Your task to perform on an android device: Open Reddit.com Image 0: 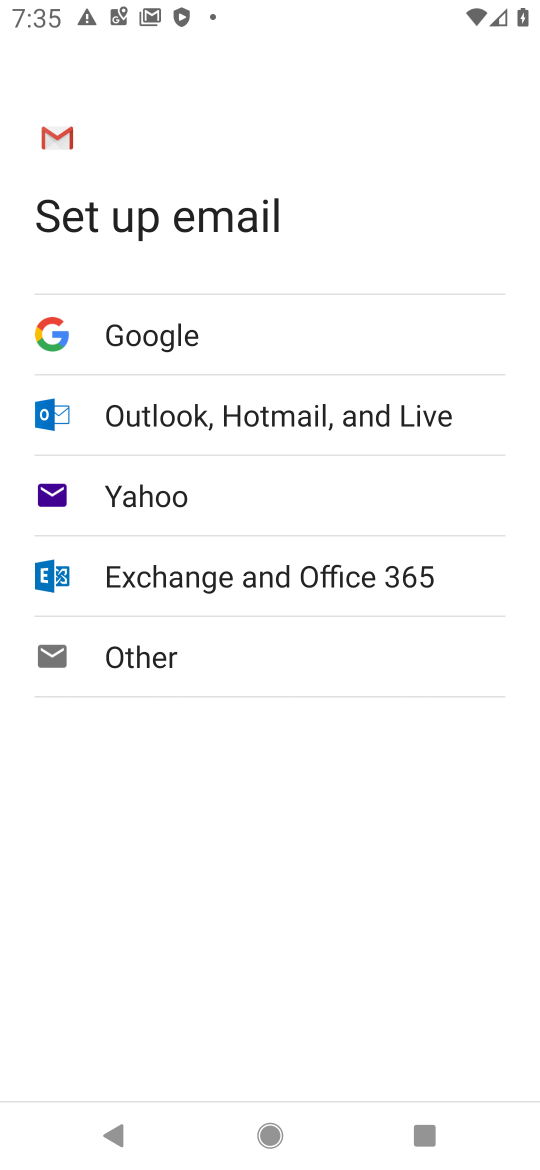
Step 0: press home button
Your task to perform on an android device: Open Reddit.com Image 1: 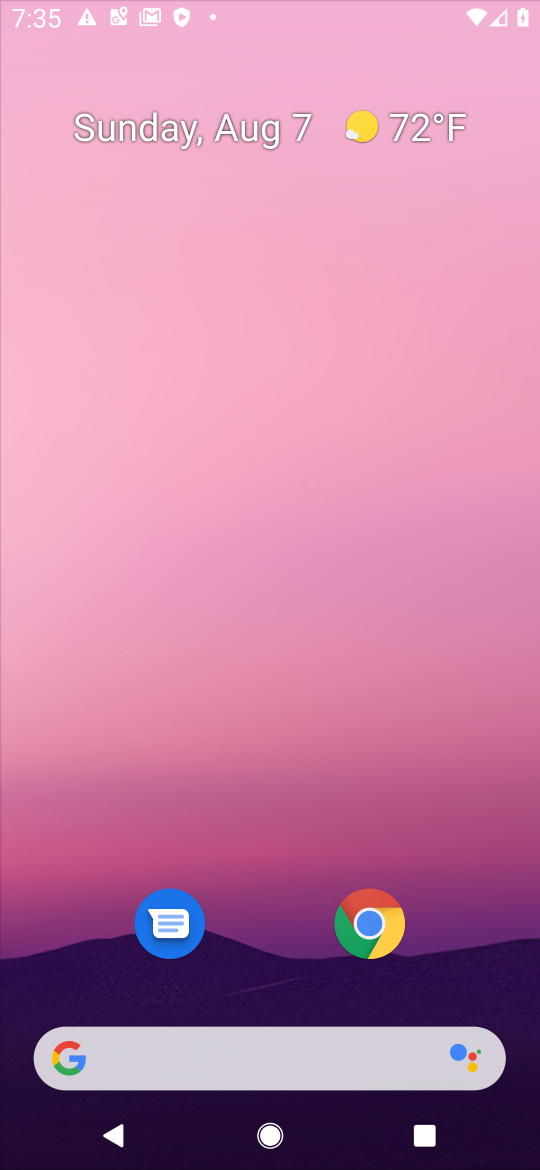
Step 1: drag from (435, 795) to (296, 198)
Your task to perform on an android device: Open Reddit.com Image 2: 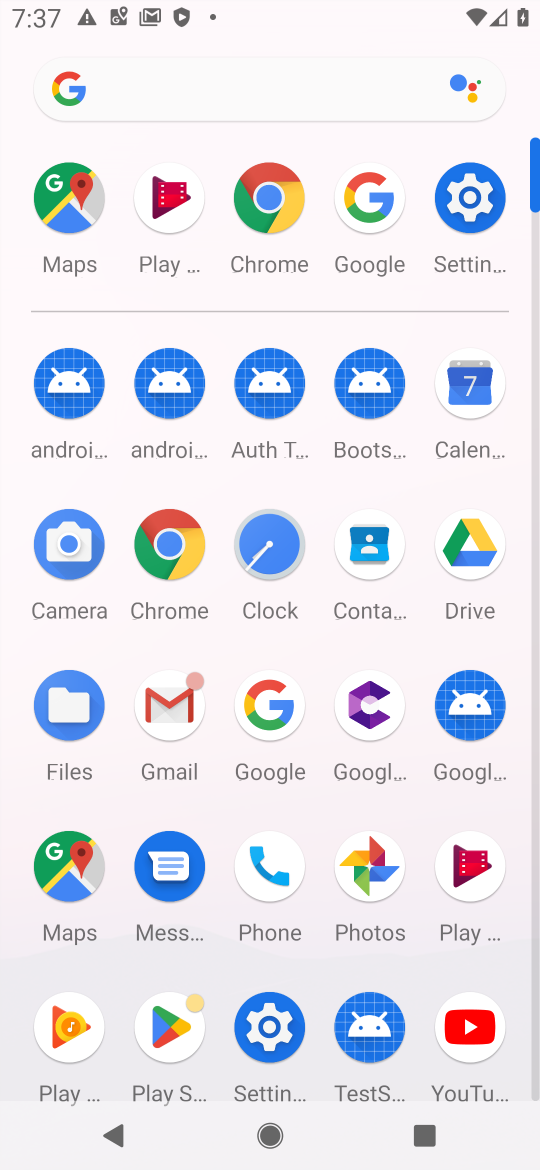
Step 2: click (247, 693)
Your task to perform on an android device: Open Reddit.com Image 3: 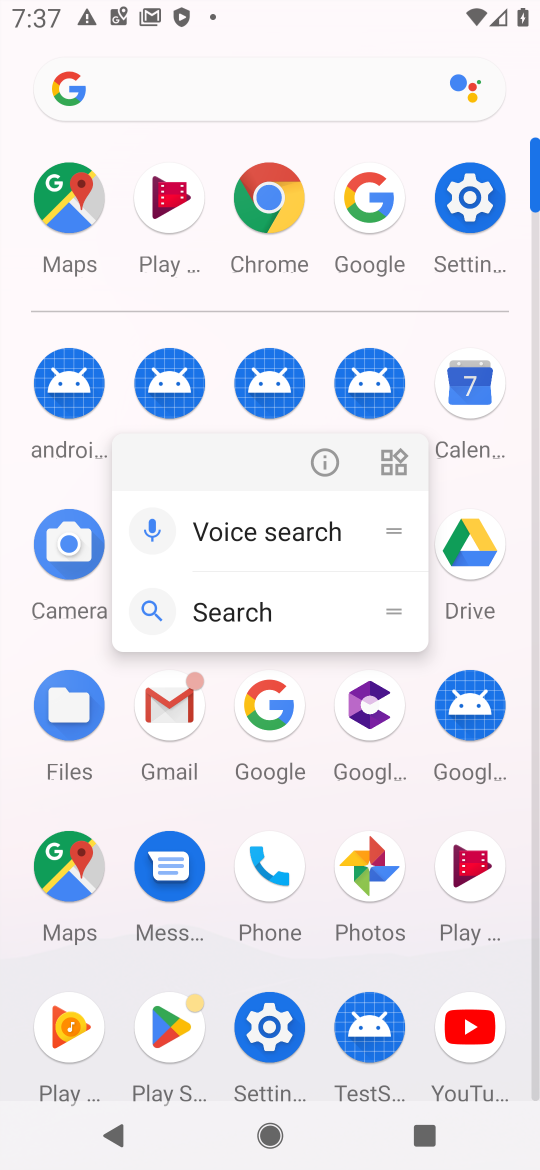
Step 3: click (247, 693)
Your task to perform on an android device: Open Reddit.com Image 4: 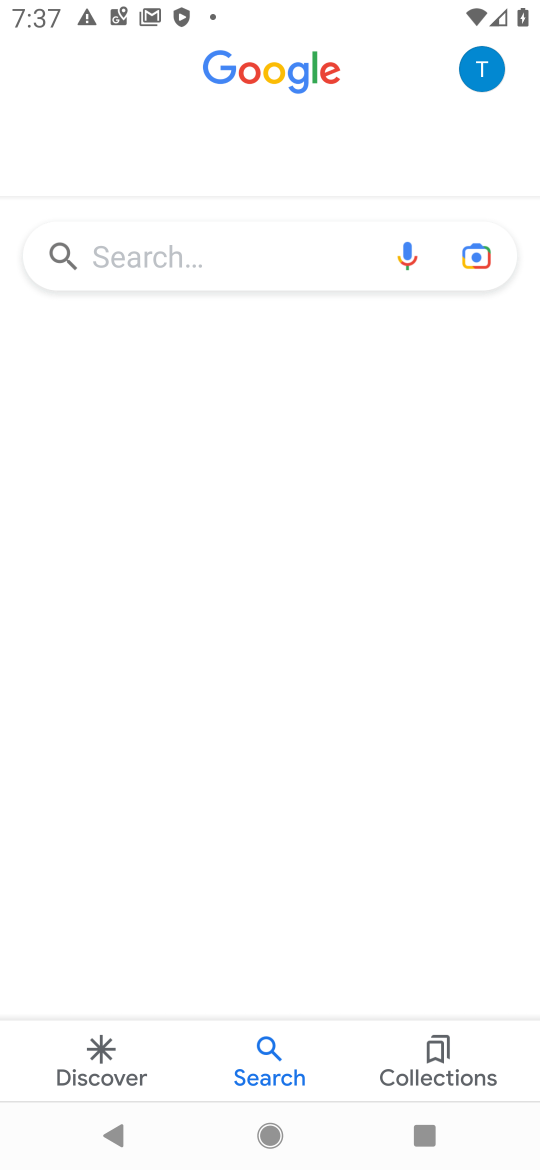
Step 4: click (219, 254)
Your task to perform on an android device: Open Reddit.com Image 5: 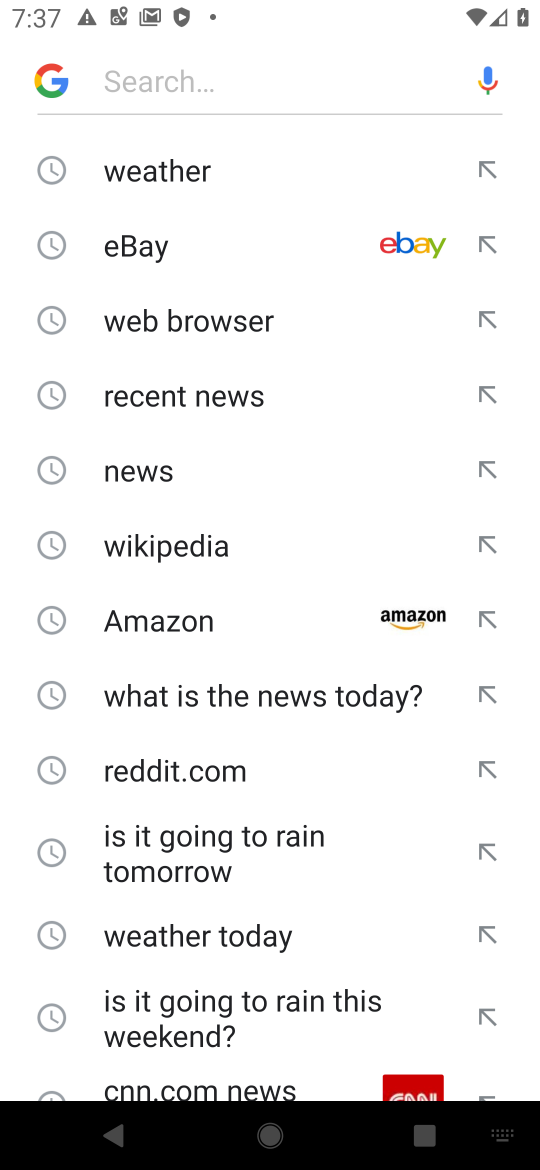
Step 5: type "Reddit.com"
Your task to perform on an android device: Open Reddit.com Image 6: 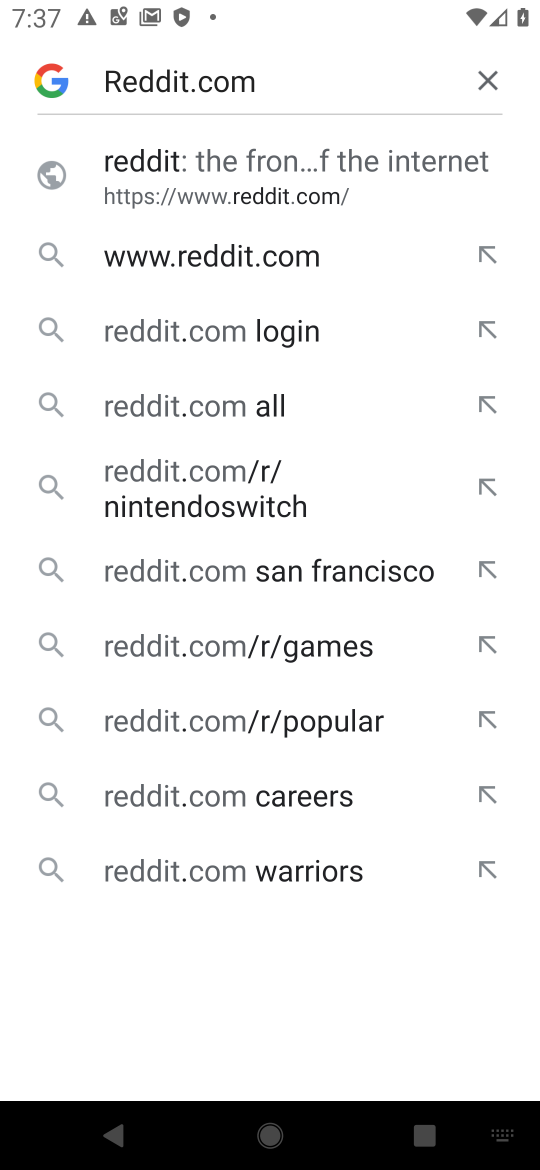
Step 6: click (294, 157)
Your task to perform on an android device: Open Reddit.com Image 7: 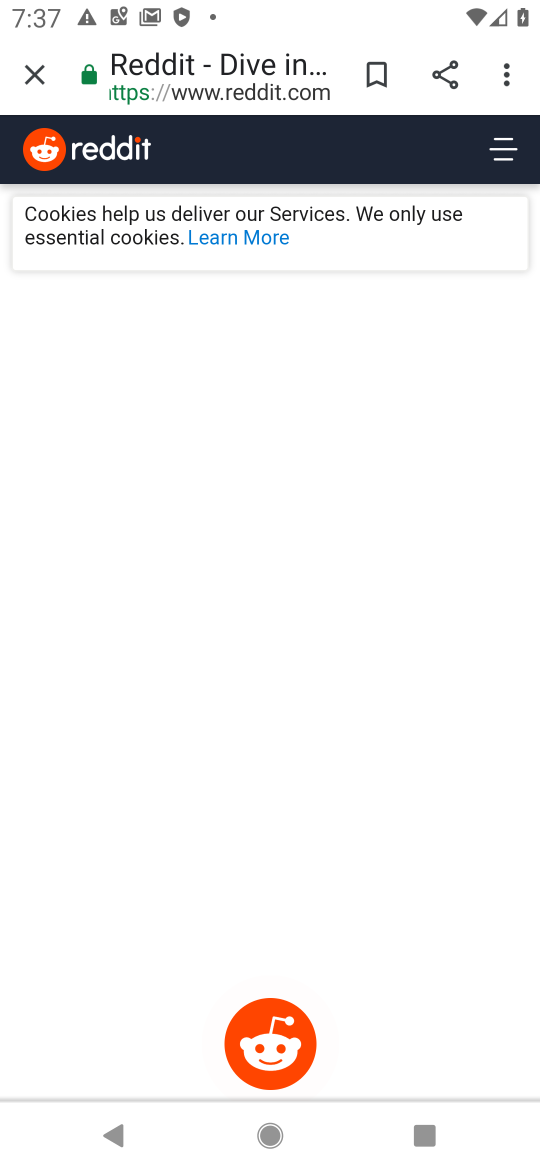
Step 7: task complete